Your task to perform on an android device: Open settings on Google Maps Image 0: 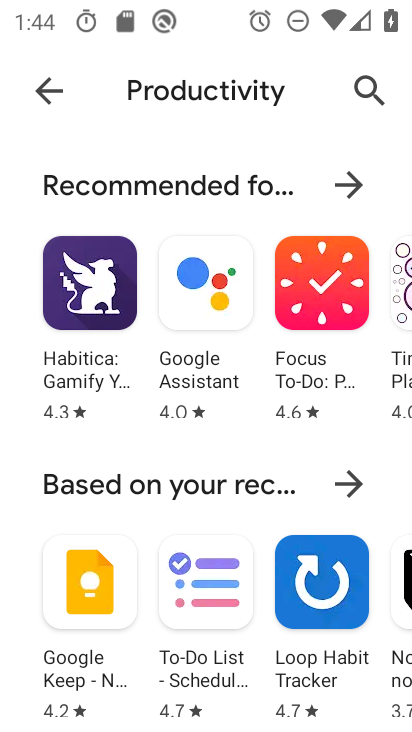
Step 0: press home button
Your task to perform on an android device: Open settings on Google Maps Image 1: 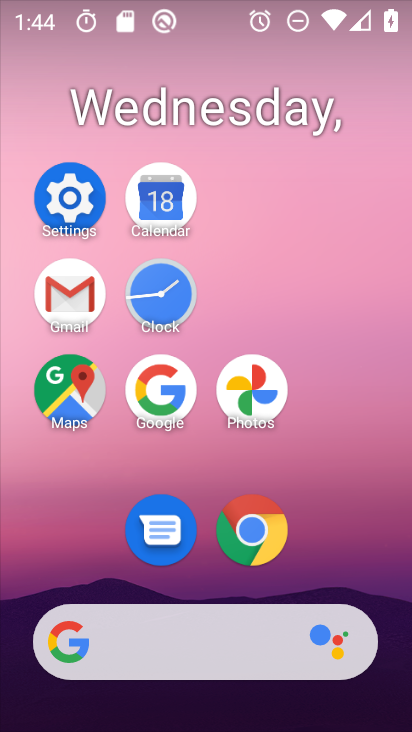
Step 1: click (58, 376)
Your task to perform on an android device: Open settings on Google Maps Image 2: 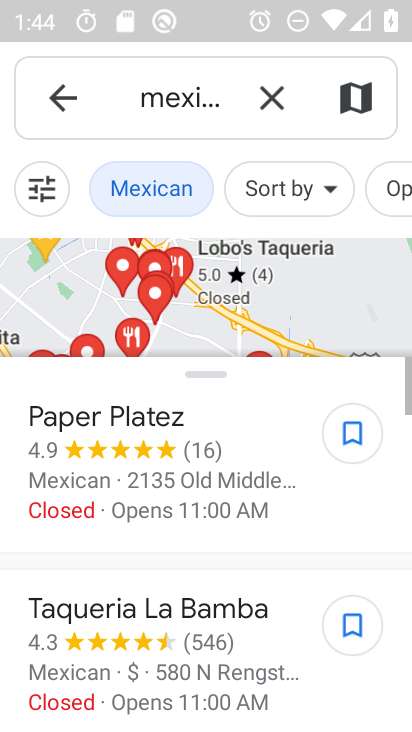
Step 2: click (40, 86)
Your task to perform on an android device: Open settings on Google Maps Image 3: 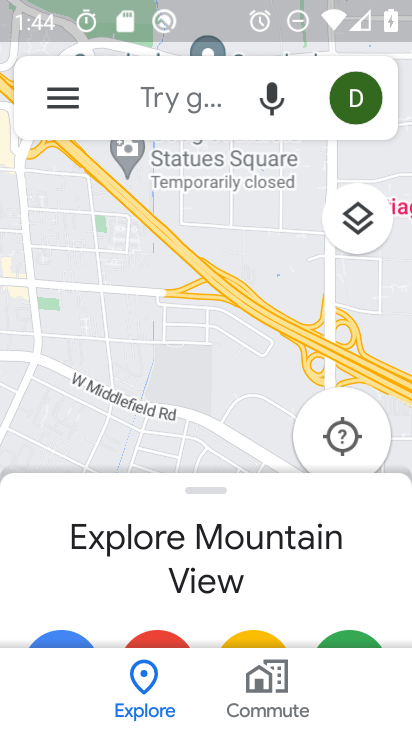
Step 3: click (40, 88)
Your task to perform on an android device: Open settings on Google Maps Image 4: 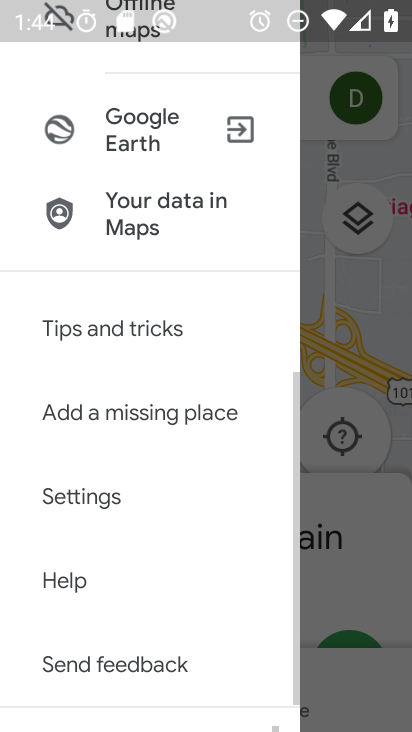
Step 4: click (154, 500)
Your task to perform on an android device: Open settings on Google Maps Image 5: 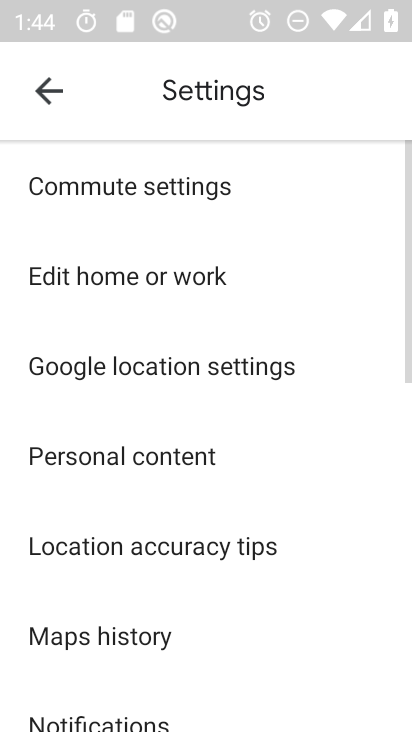
Step 5: task complete